Your task to perform on an android device: Open Youtube and go to the subscriptions tab Image 0: 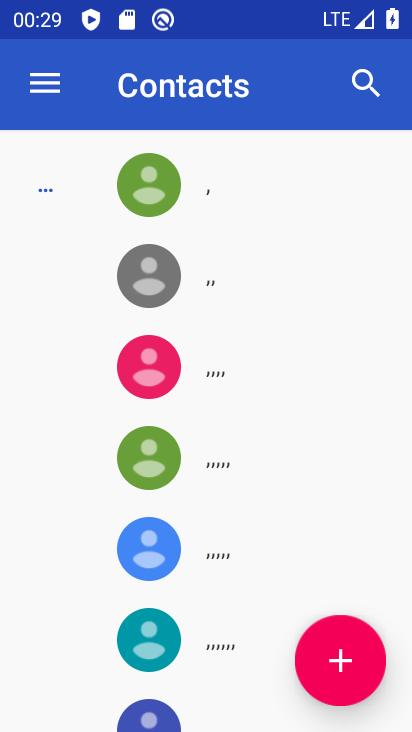
Step 0: press home button
Your task to perform on an android device: Open Youtube and go to the subscriptions tab Image 1: 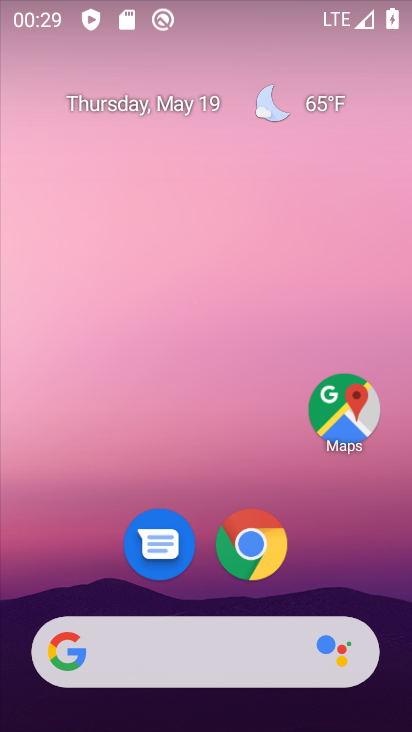
Step 1: drag from (349, 483) to (353, 147)
Your task to perform on an android device: Open Youtube and go to the subscriptions tab Image 2: 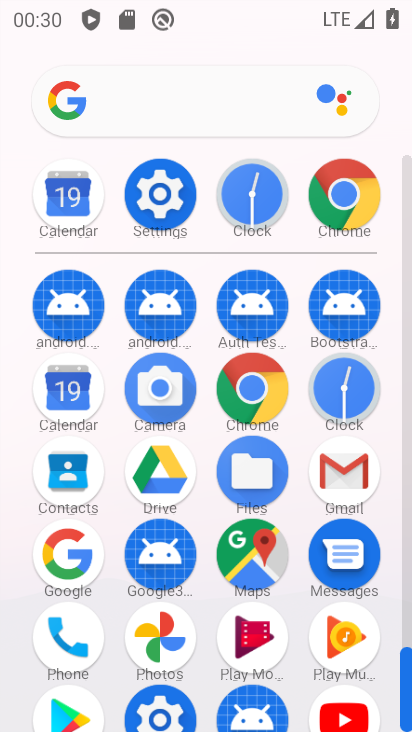
Step 2: drag from (301, 656) to (300, 445)
Your task to perform on an android device: Open Youtube and go to the subscriptions tab Image 3: 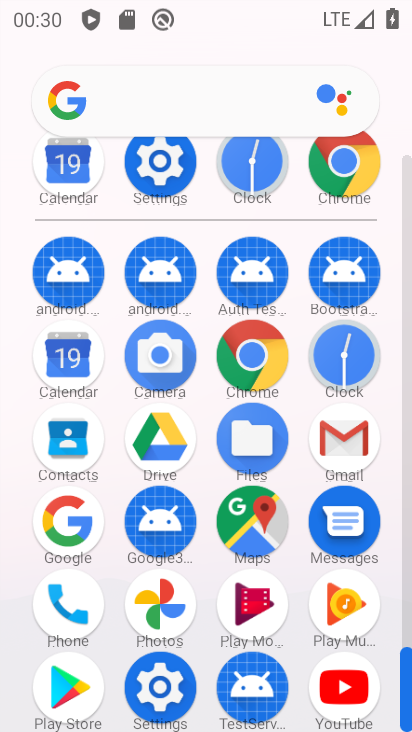
Step 3: click (351, 695)
Your task to perform on an android device: Open Youtube and go to the subscriptions tab Image 4: 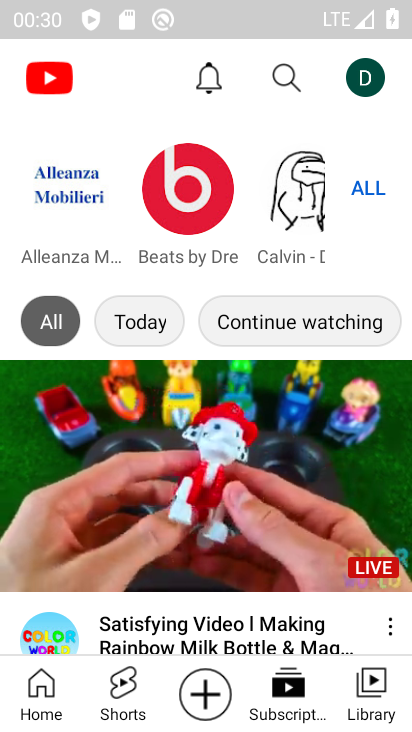
Step 4: click (292, 704)
Your task to perform on an android device: Open Youtube and go to the subscriptions tab Image 5: 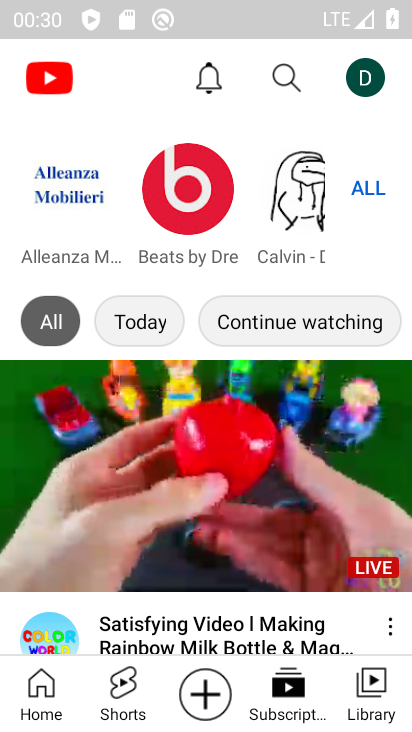
Step 5: task complete